Your task to perform on an android device: toggle translation in the chrome app Image 0: 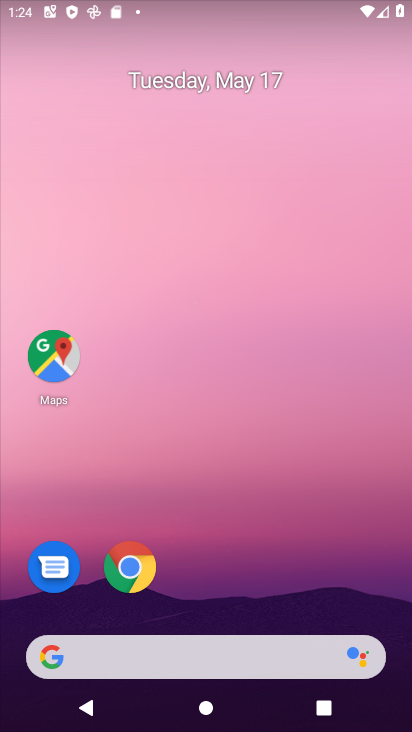
Step 0: click (129, 566)
Your task to perform on an android device: toggle translation in the chrome app Image 1: 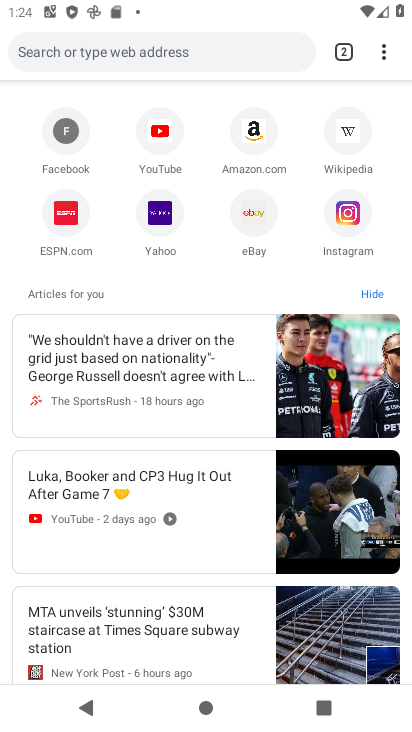
Step 1: click (383, 60)
Your task to perform on an android device: toggle translation in the chrome app Image 2: 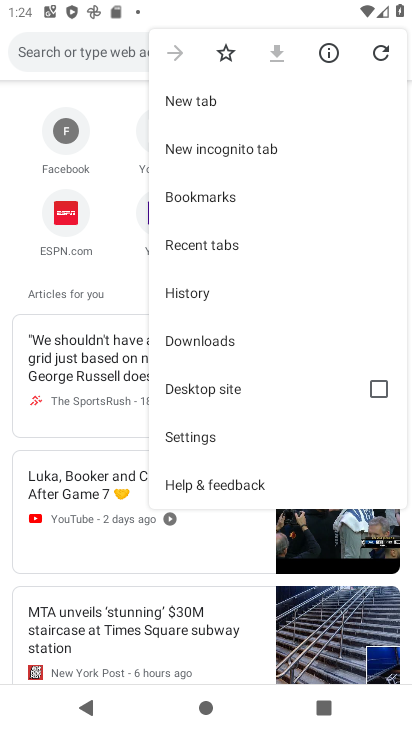
Step 2: click (203, 432)
Your task to perform on an android device: toggle translation in the chrome app Image 3: 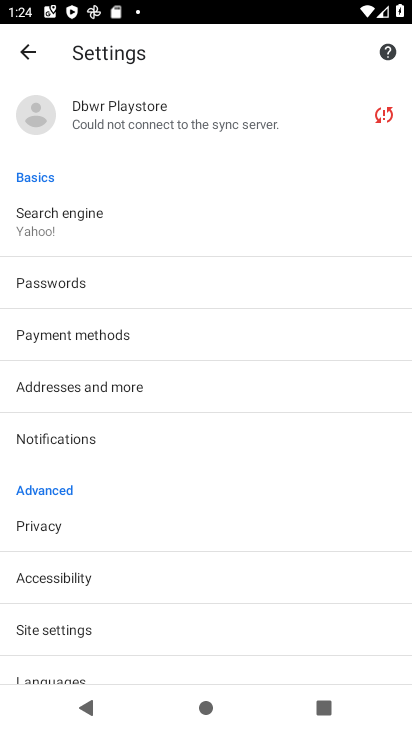
Step 3: drag from (203, 642) to (171, 294)
Your task to perform on an android device: toggle translation in the chrome app Image 4: 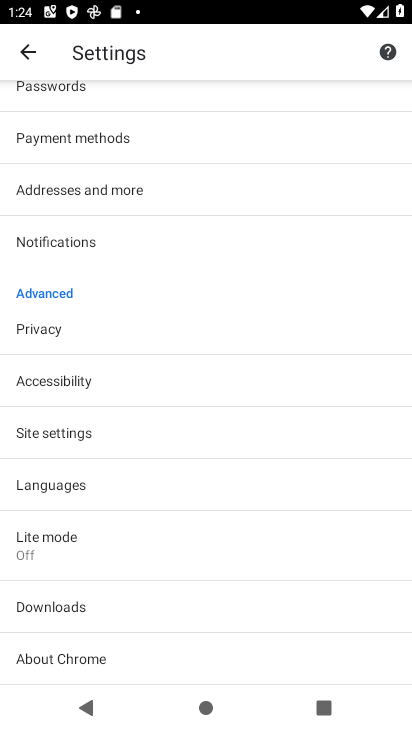
Step 4: click (58, 487)
Your task to perform on an android device: toggle translation in the chrome app Image 5: 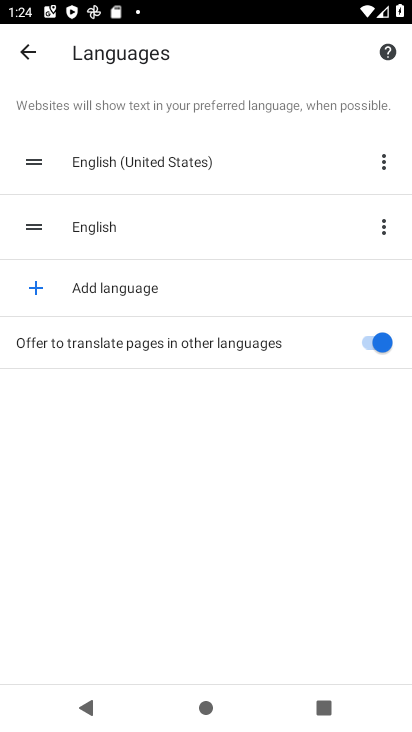
Step 5: click (361, 338)
Your task to perform on an android device: toggle translation in the chrome app Image 6: 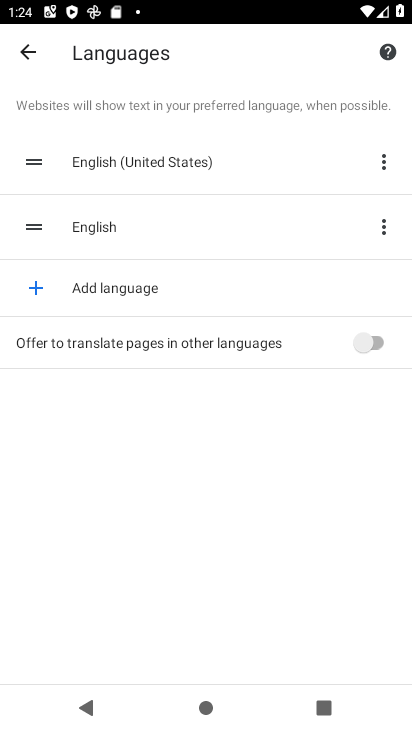
Step 6: task complete